Your task to perform on an android device: Go to Google Image 0: 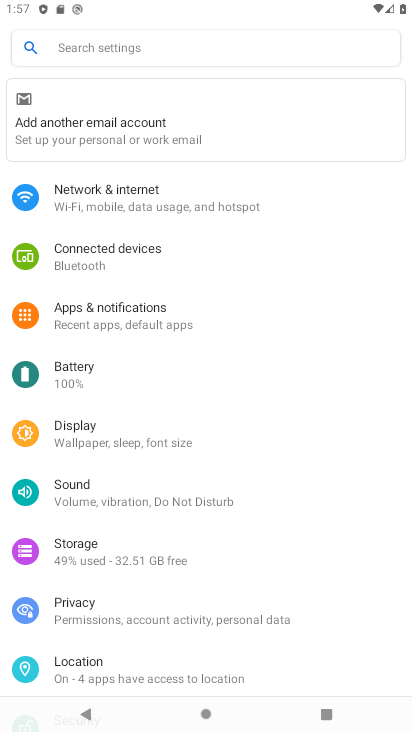
Step 0: press home button
Your task to perform on an android device: Go to Google Image 1: 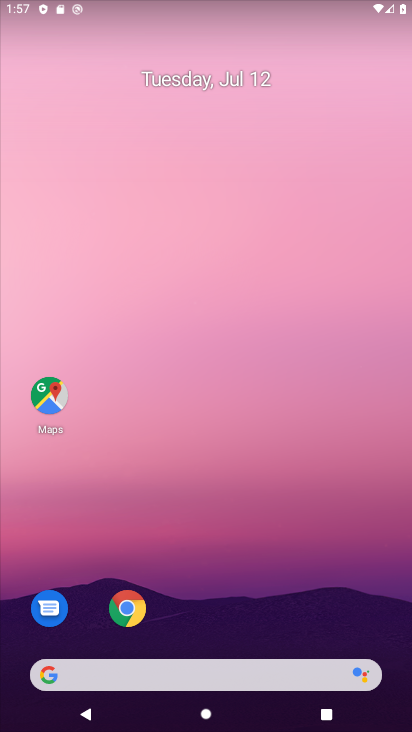
Step 1: drag from (283, 618) to (244, 102)
Your task to perform on an android device: Go to Google Image 2: 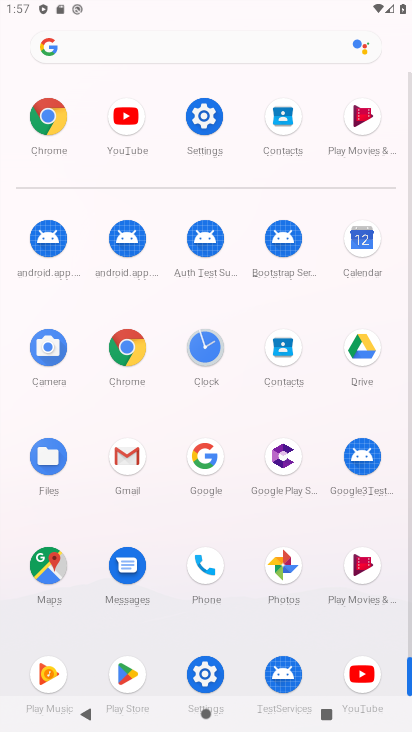
Step 2: click (204, 453)
Your task to perform on an android device: Go to Google Image 3: 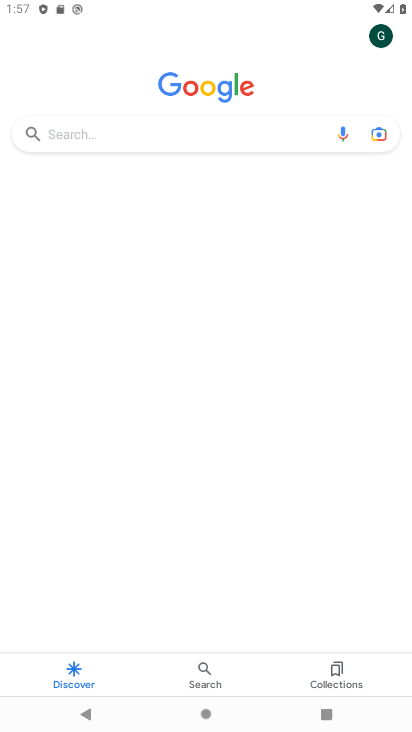
Step 3: task complete